Your task to perform on an android device: Open the Play Movies app and select the watchlist tab. Image 0: 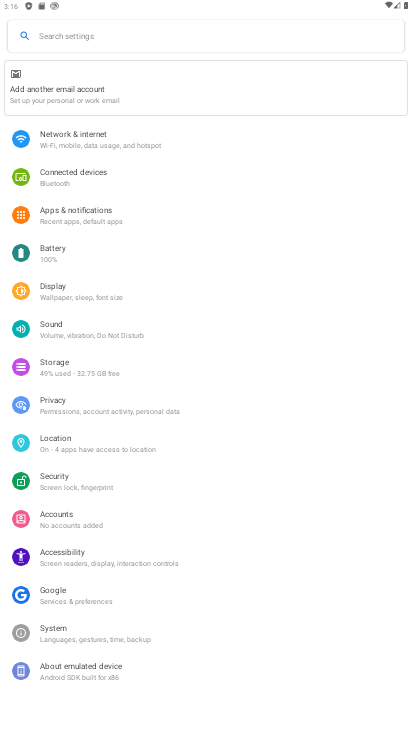
Step 0: press home button
Your task to perform on an android device: Open the Play Movies app and select the watchlist tab. Image 1: 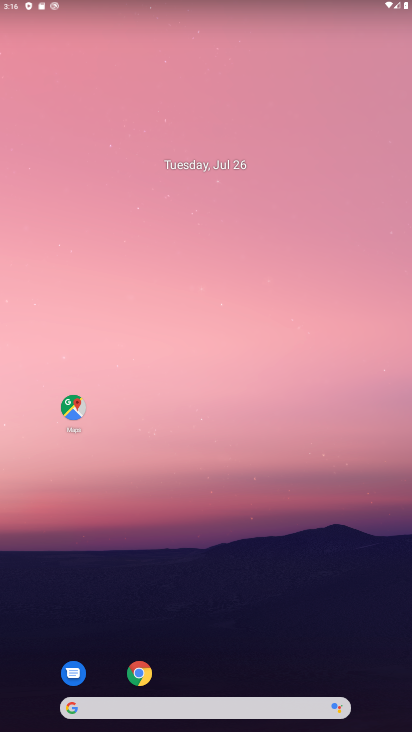
Step 1: drag from (313, 643) to (309, 63)
Your task to perform on an android device: Open the Play Movies app and select the watchlist tab. Image 2: 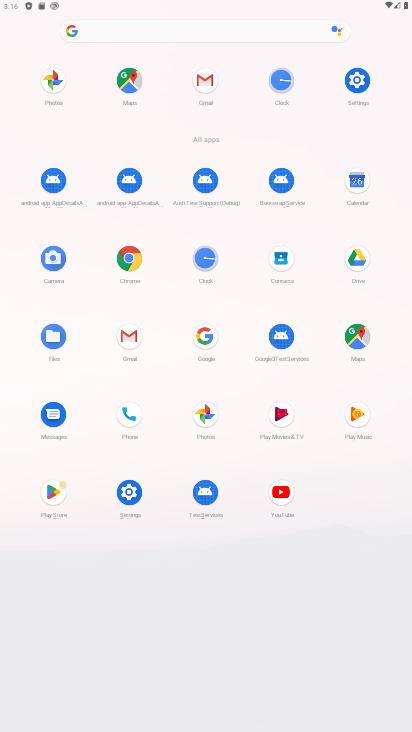
Step 2: click (283, 414)
Your task to perform on an android device: Open the Play Movies app and select the watchlist tab. Image 3: 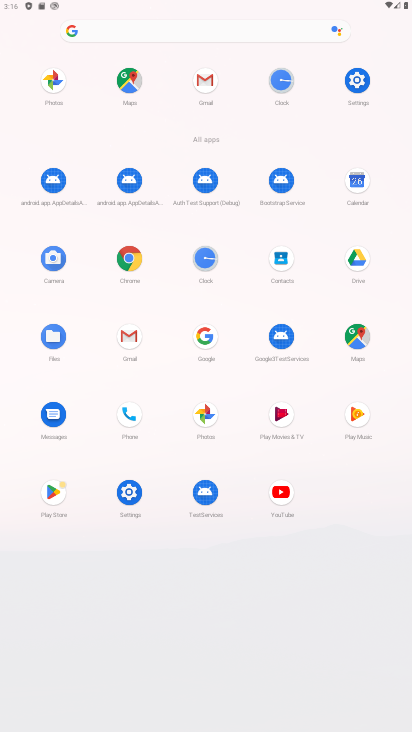
Step 3: click (285, 417)
Your task to perform on an android device: Open the Play Movies app and select the watchlist tab. Image 4: 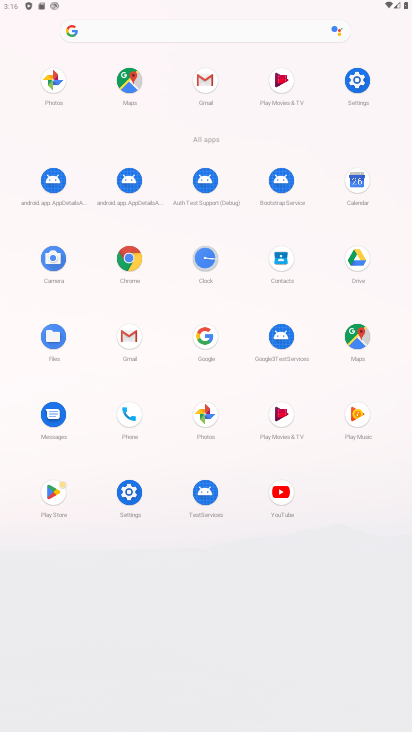
Step 4: task complete